Your task to perform on an android device: Go to Wikipedia Image 0: 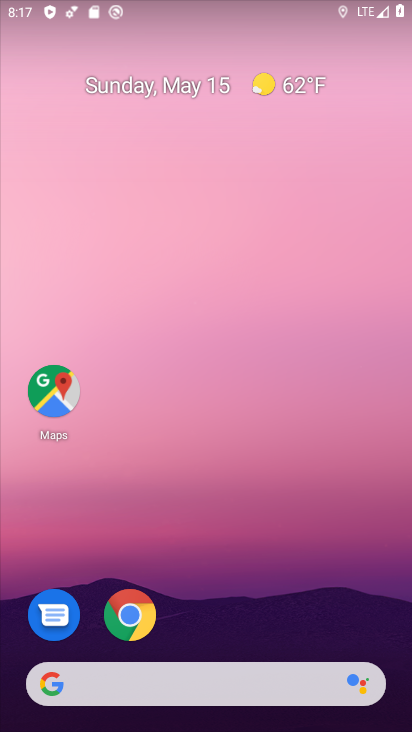
Step 0: click (231, 694)
Your task to perform on an android device: Go to Wikipedia Image 1: 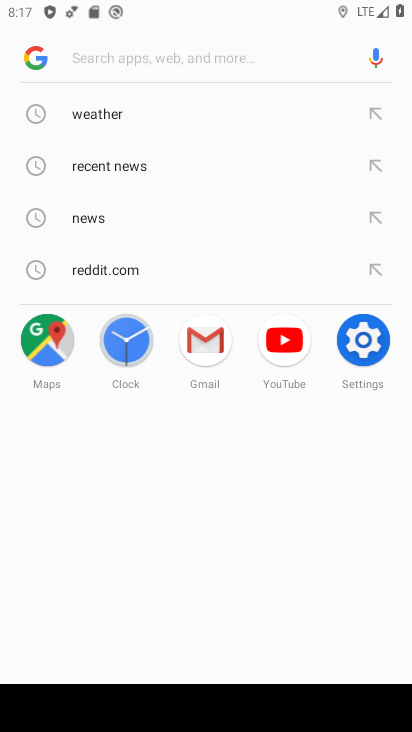
Step 1: type "Wikipedia"
Your task to perform on an android device: Go to Wikipedia Image 2: 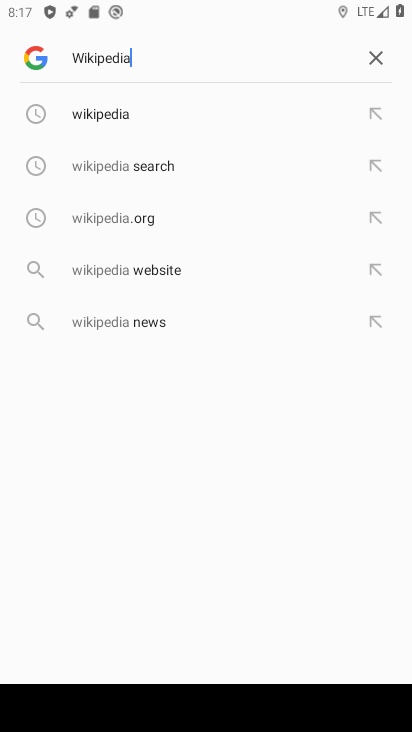
Step 2: click (122, 114)
Your task to perform on an android device: Go to Wikipedia Image 3: 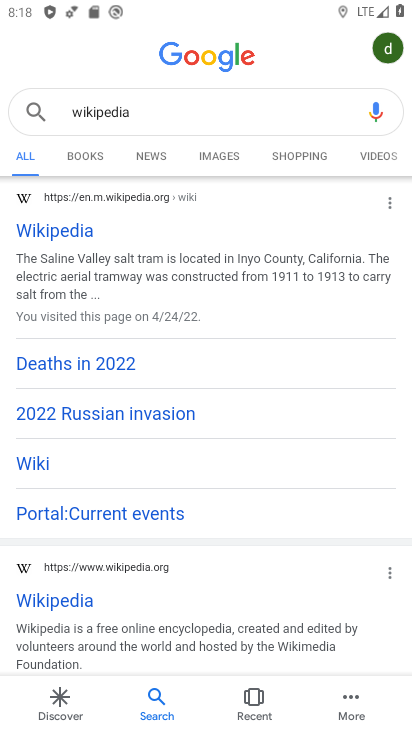
Step 3: click (50, 238)
Your task to perform on an android device: Go to Wikipedia Image 4: 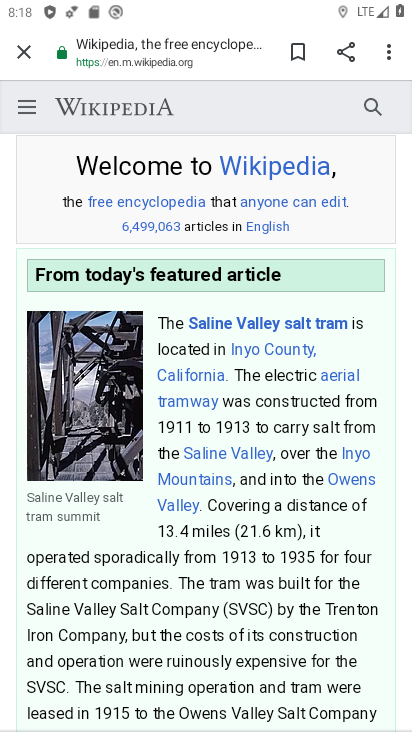
Step 4: task complete